Your task to perform on an android device: Search for "usb-c to usb-b" on costco, select the first entry, add it to the cart, then select checkout. Image 0: 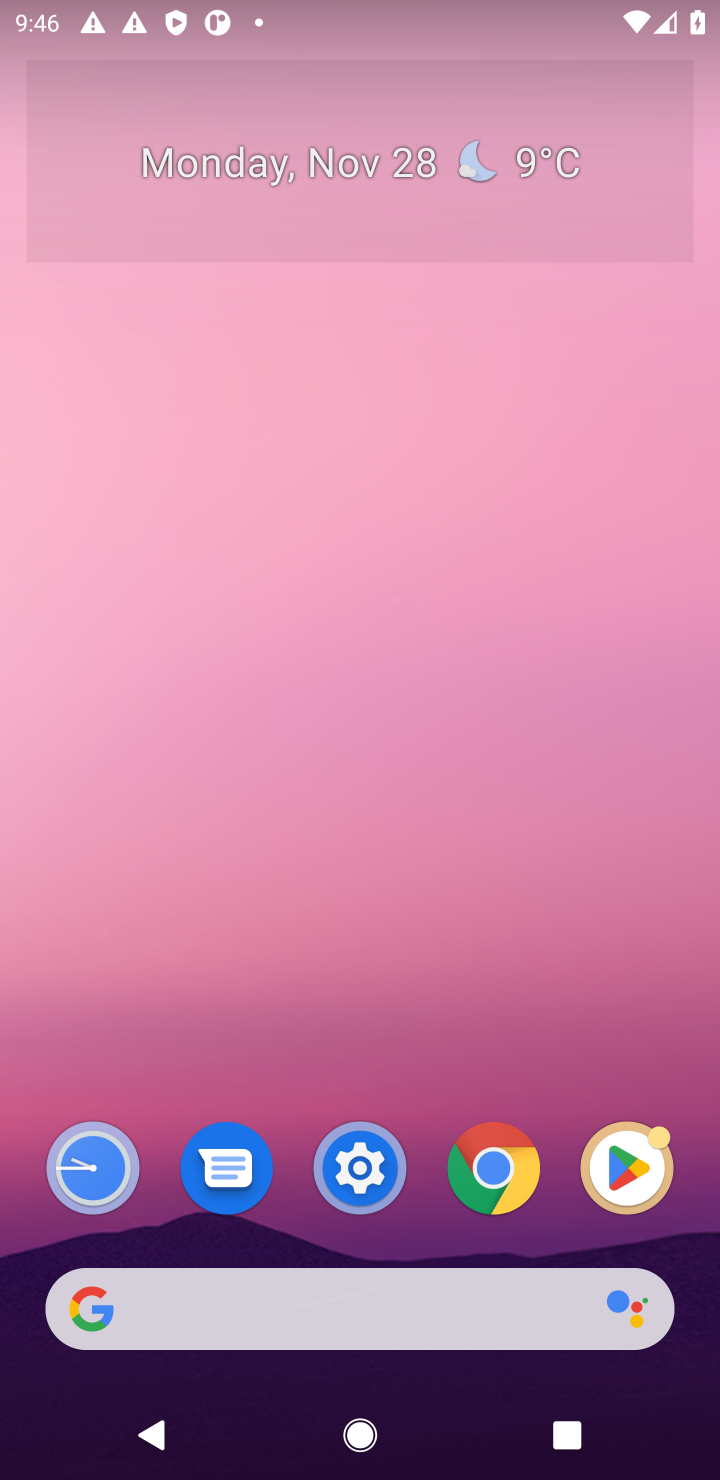
Step 0: click (388, 1317)
Your task to perform on an android device: Search for "usb-c to usb-b" on costco, select the first entry, add it to the cart, then select checkout. Image 1: 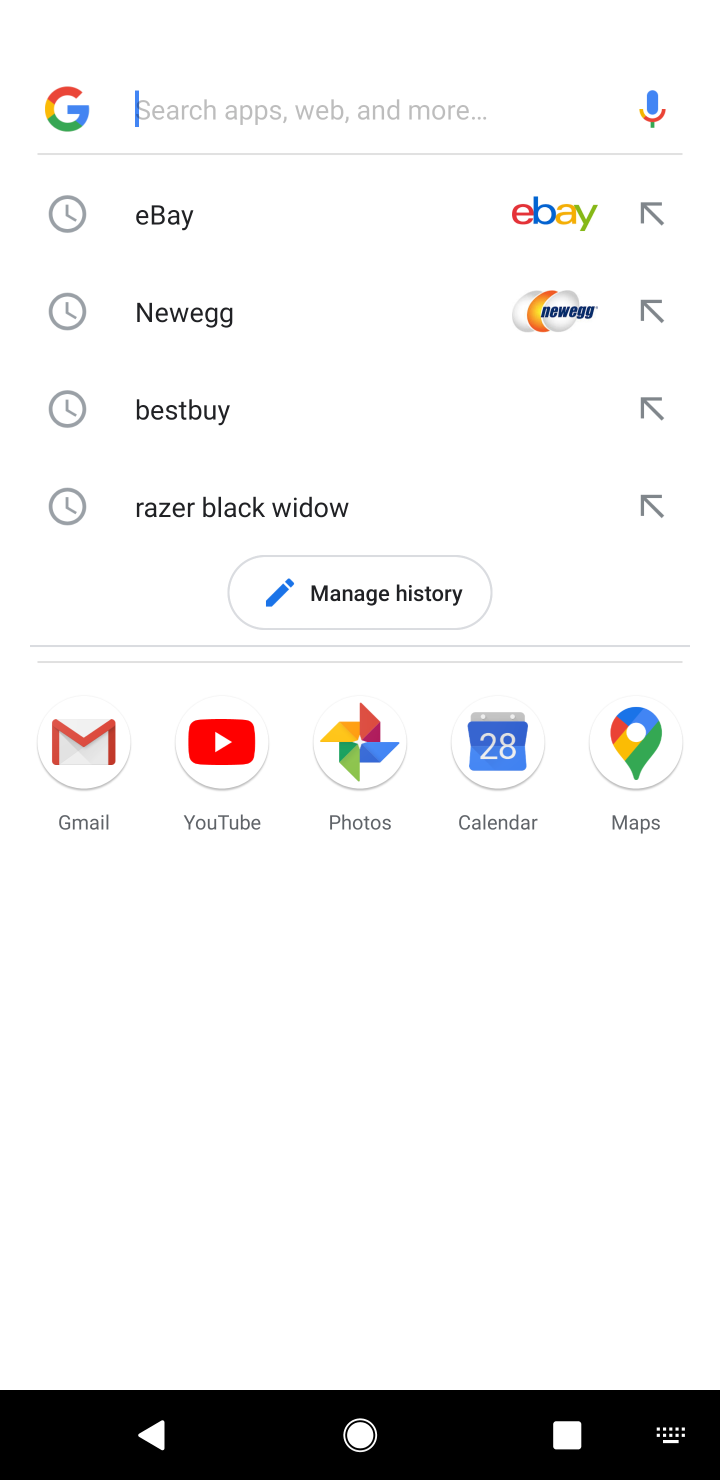
Step 1: type "costco.com"
Your task to perform on an android device: Search for "usb-c to usb-b" on costco, select the first entry, add it to the cart, then select checkout. Image 2: 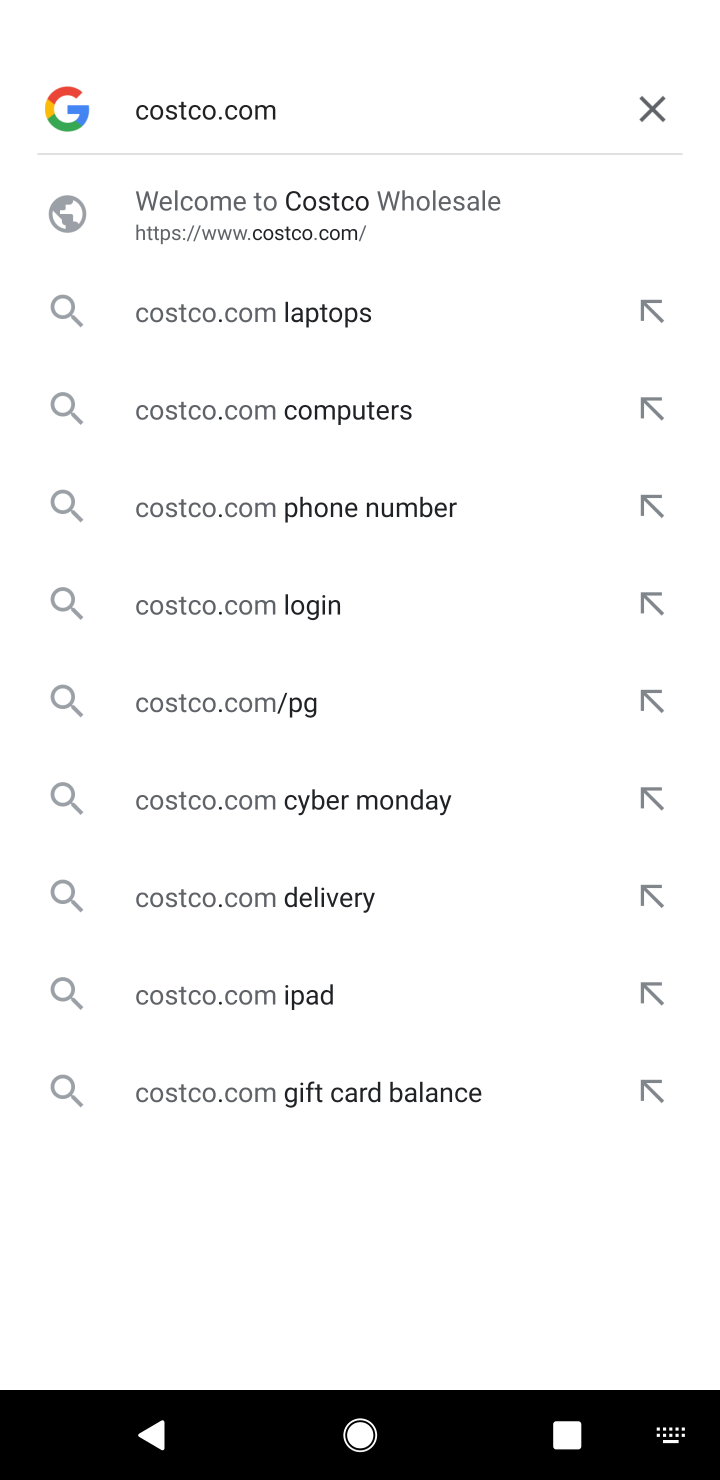
Step 2: click (304, 223)
Your task to perform on an android device: Search for "usb-c to usb-b" on costco, select the first entry, add it to the cart, then select checkout. Image 3: 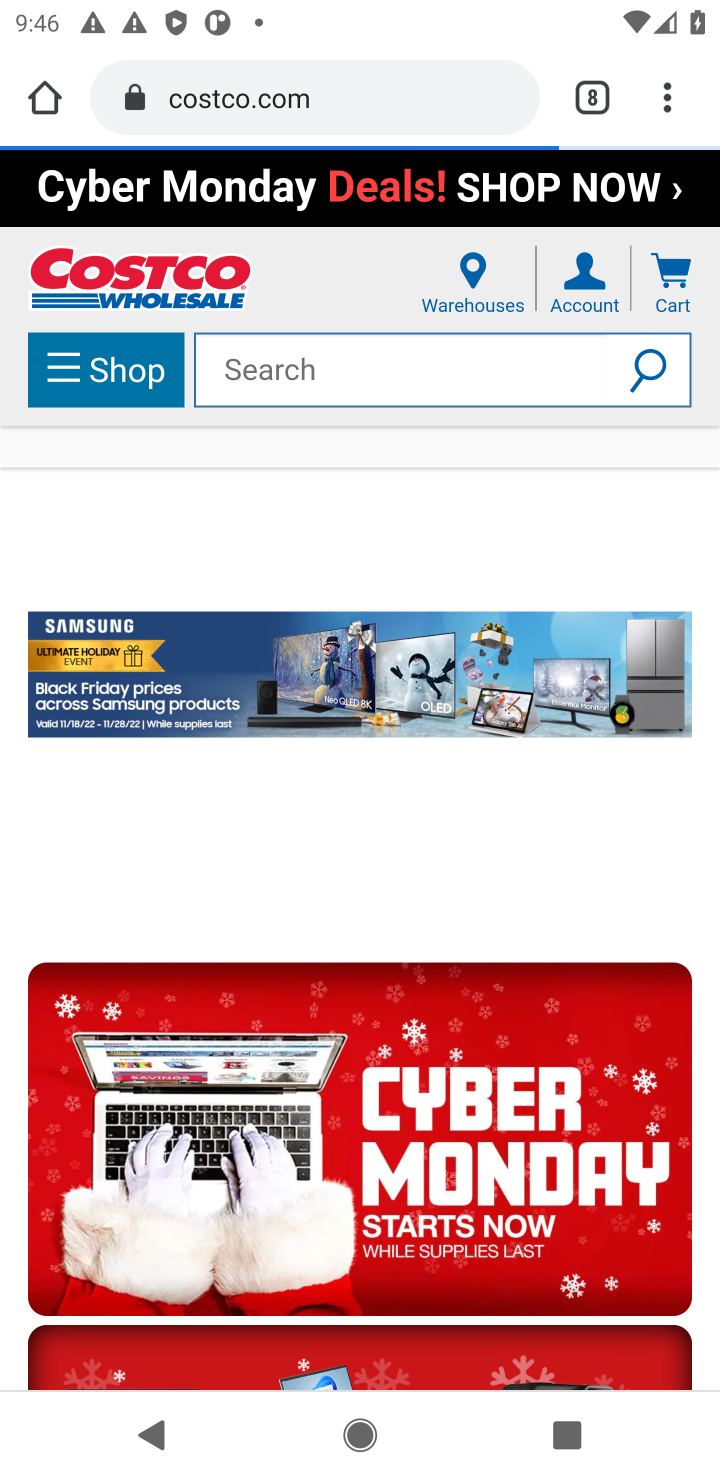
Step 3: task complete